Your task to perform on an android device: open app "Cash App" Image 0: 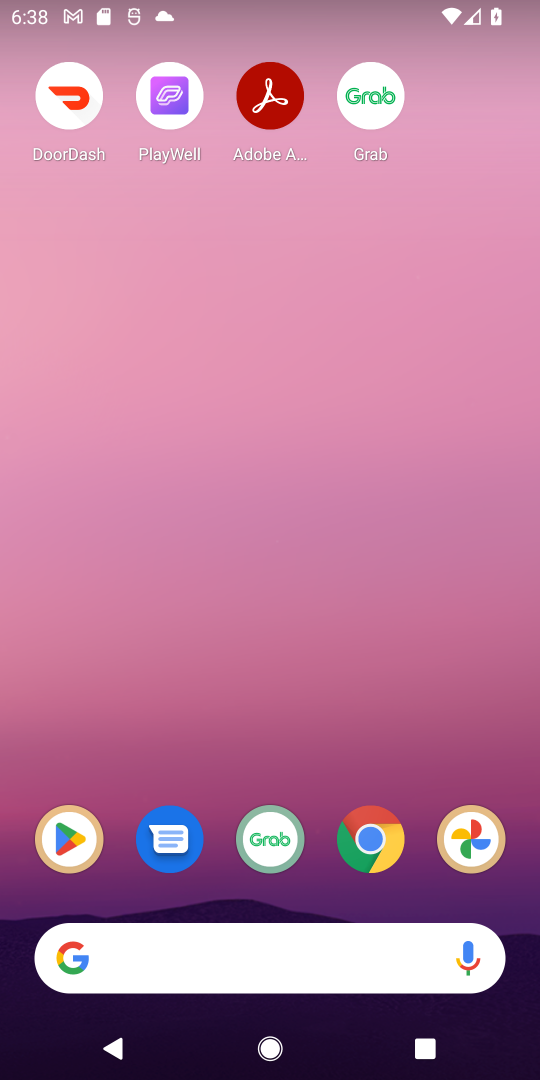
Step 0: click (61, 842)
Your task to perform on an android device: open app "Cash App" Image 1: 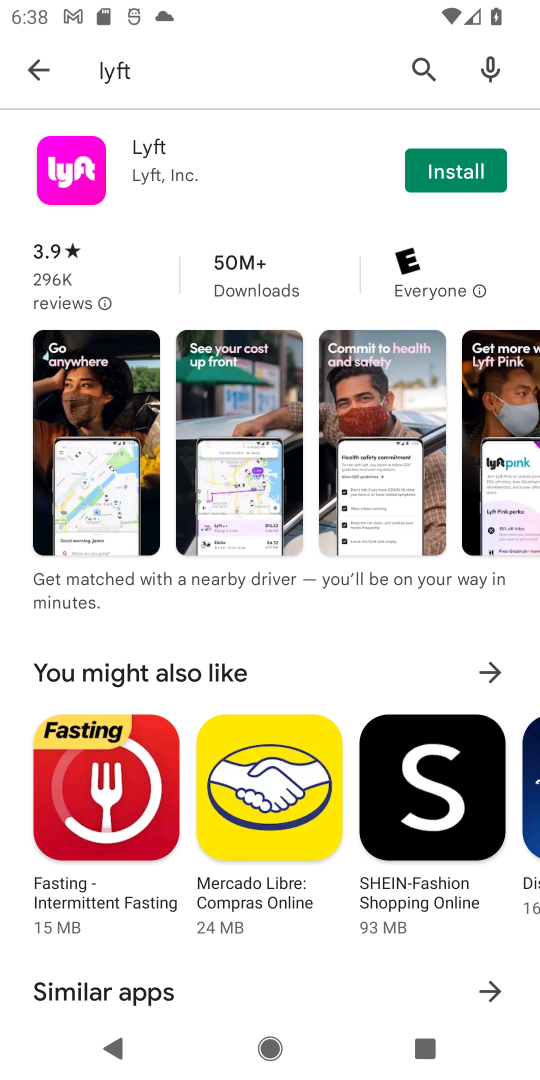
Step 1: click (175, 71)
Your task to perform on an android device: open app "Cash App" Image 2: 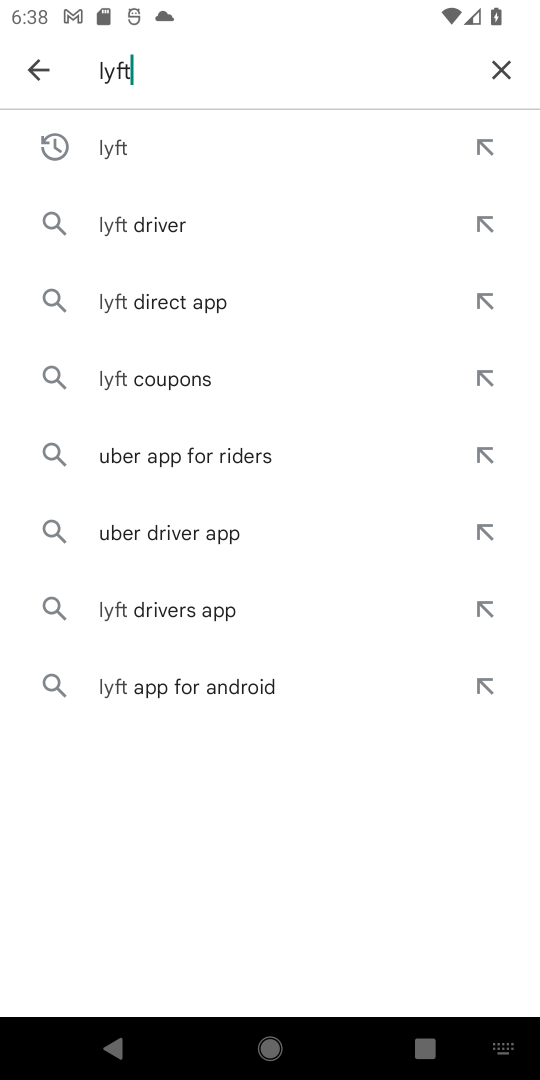
Step 2: click (499, 72)
Your task to perform on an android device: open app "Cash App" Image 3: 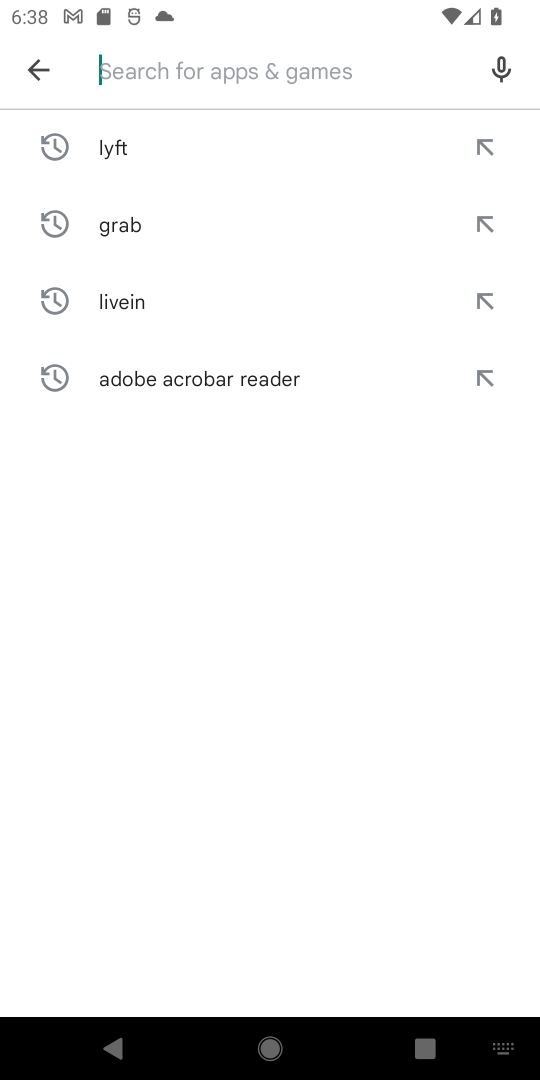
Step 3: type "CashApp"
Your task to perform on an android device: open app "Cash App" Image 4: 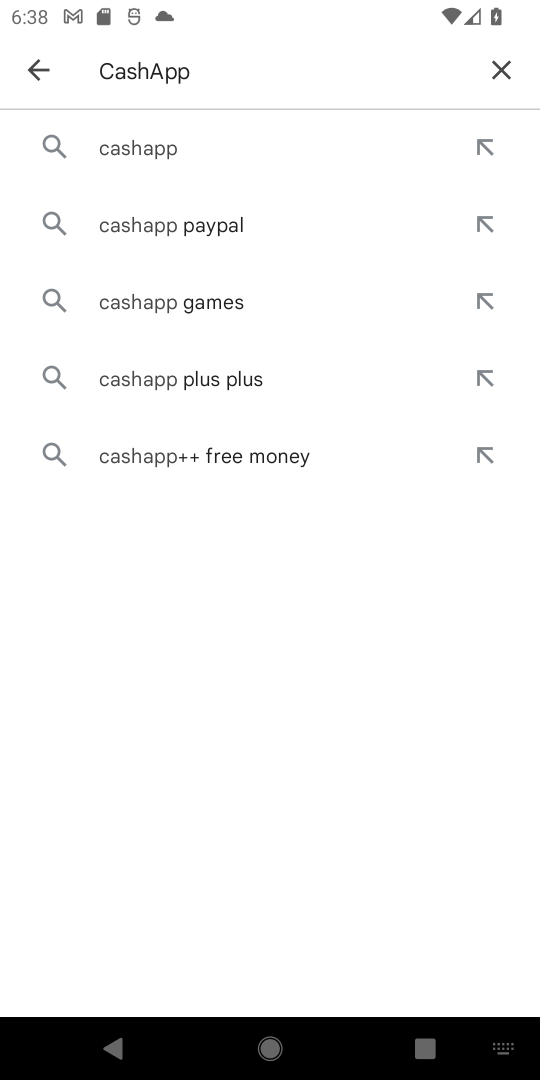
Step 4: click (157, 174)
Your task to perform on an android device: open app "Cash App" Image 5: 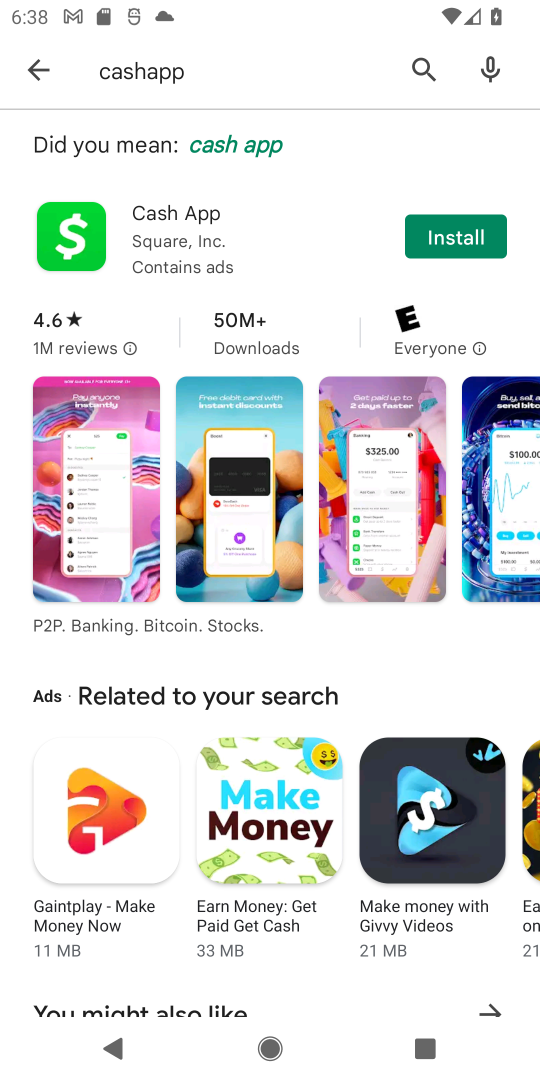
Step 5: task complete